Your task to perform on an android device: toggle improve location accuracy Image 0: 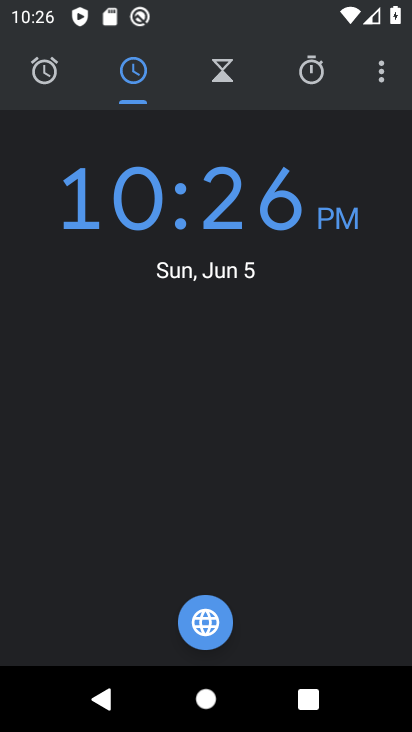
Step 0: press home button
Your task to perform on an android device: toggle improve location accuracy Image 1: 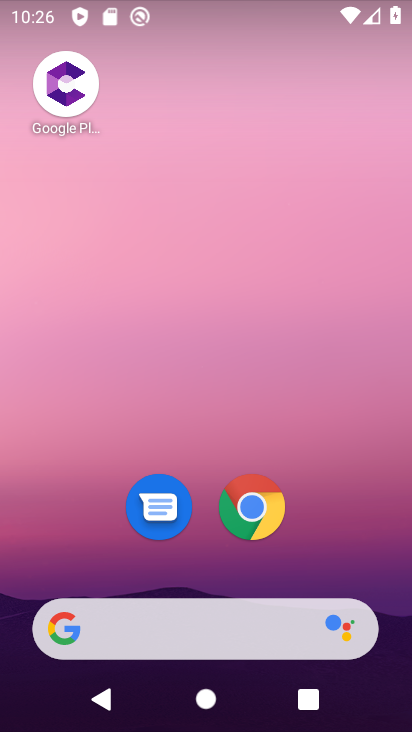
Step 1: drag from (168, 611) to (172, 164)
Your task to perform on an android device: toggle improve location accuracy Image 2: 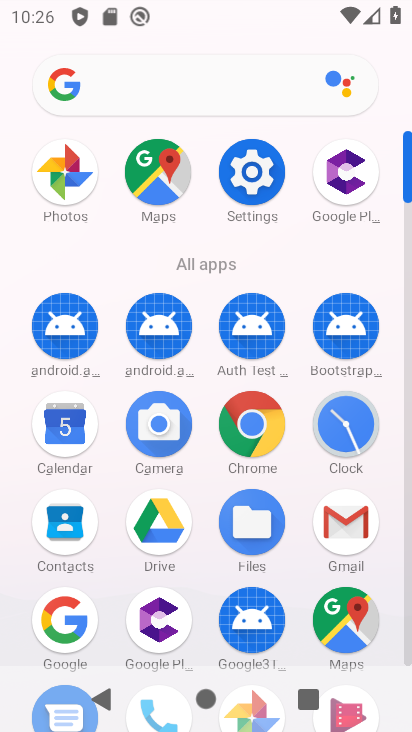
Step 2: click (255, 180)
Your task to perform on an android device: toggle improve location accuracy Image 3: 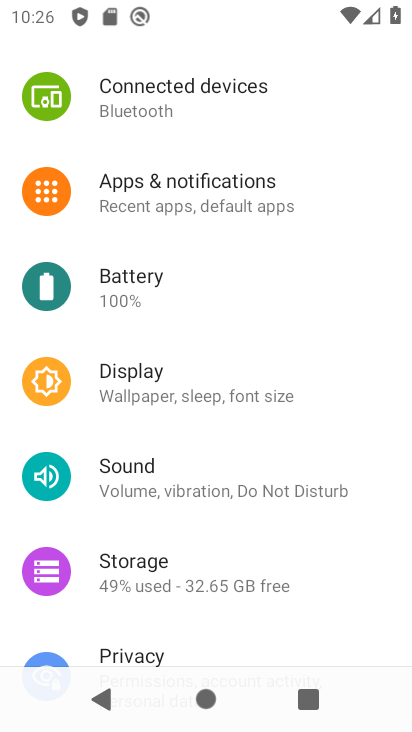
Step 3: drag from (163, 658) to (145, 400)
Your task to perform on an android device: toggle improve location accuracy Image 4: 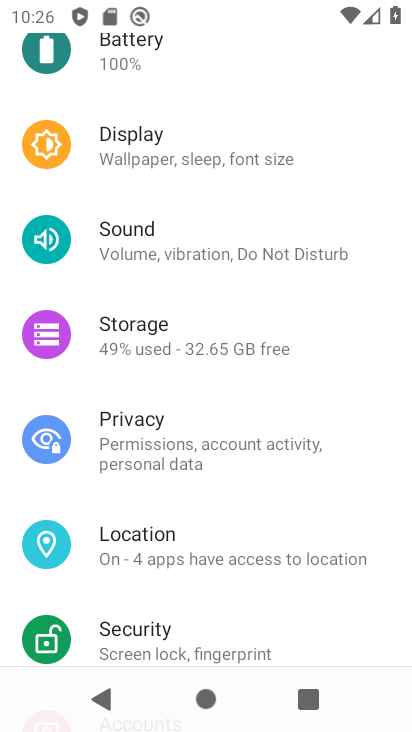
Step 4: click (131, 545)
Your task to perform on an android device: toggle improve location accuracy Image 5: 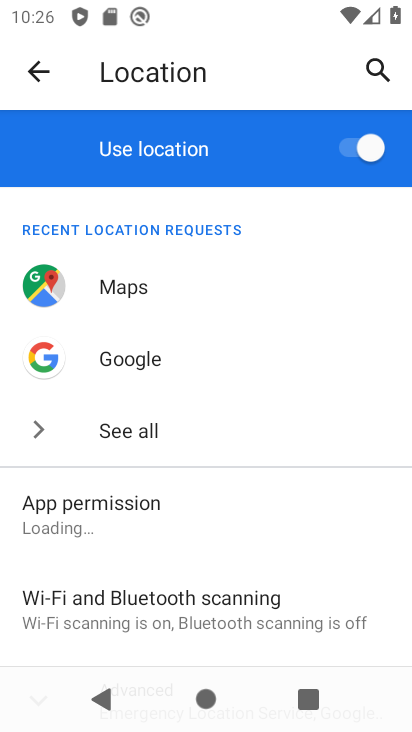
Step 5: drag from (178, 624) to (173, 360)
Your task to perform on an android device: toggle improve location accuracy Image 6: 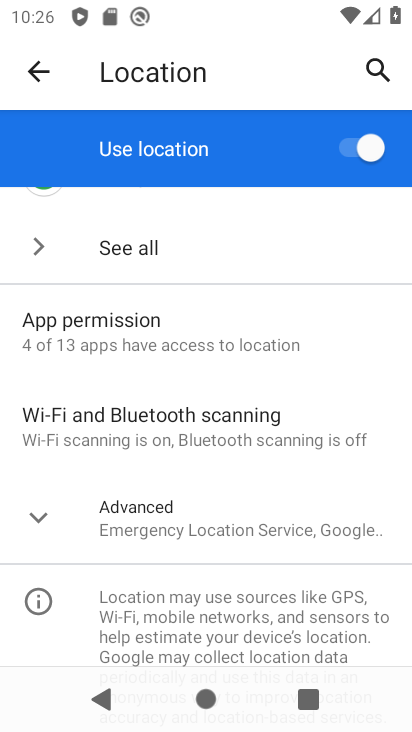
Step 6: click (185, 527)
Your task to perform on an android device: toggle improve location accuracy Image 7: 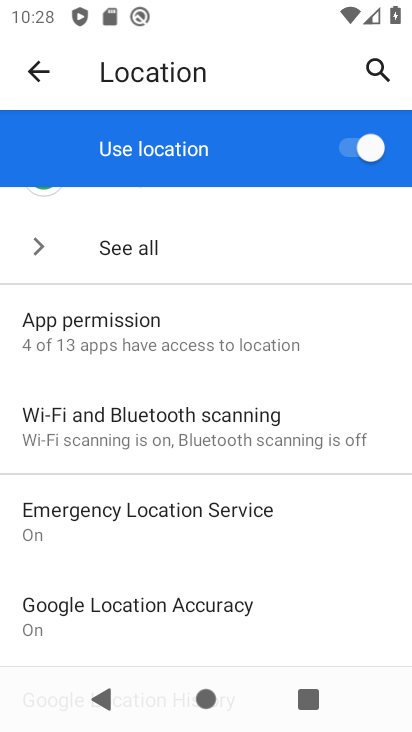
Step 7: drag from (157, 636) to (146, 457)
Your task to perform on an android device: toggle improve location accuracy Image 8: 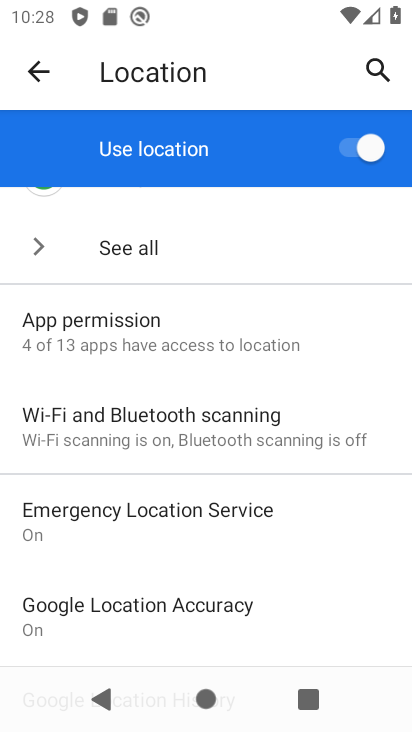
Step 8: click (164, 608)
Your task to perform on an android device: toggle improve location accuracy Image 9: 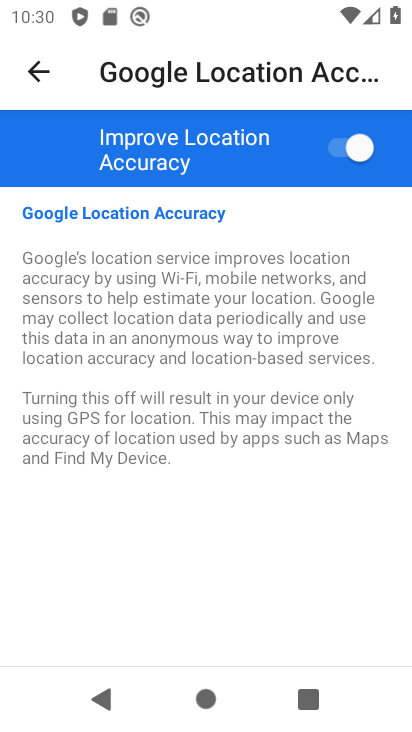
Step 9: click (332, 144)
Your task to perform on an android device: toggle improve location accuracy Image 10: 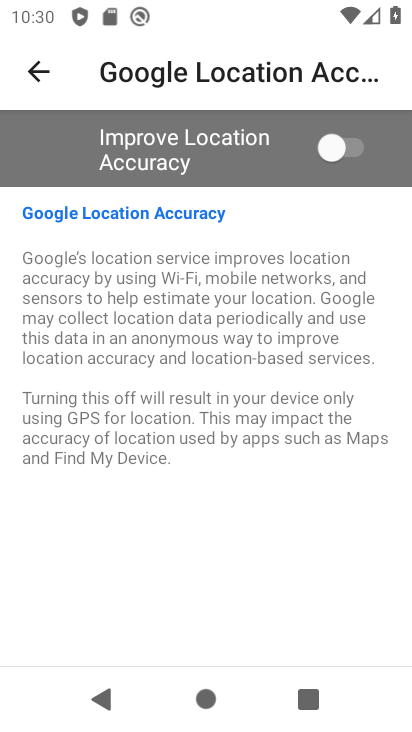
Step 10: task complete